Your task to perform on an android device: search for starred emails in the gmail app Image 0: 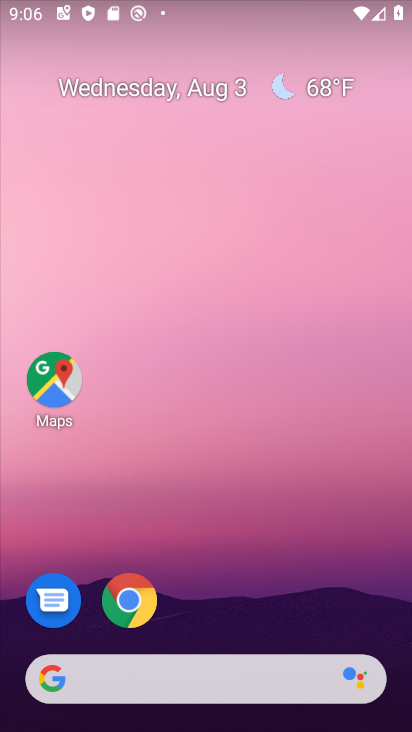
Step 0: drag from (163, 622) to (126, 0)
Your task to perform on an android device: search for starred emails in the gmail app Image 1: 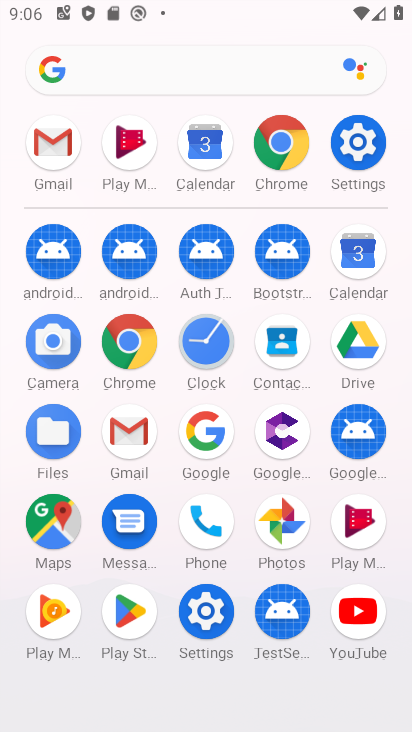
Step 1: click (134, 445)
Your task to perform on an android device: search for starred emails in the gmail app Image 2: 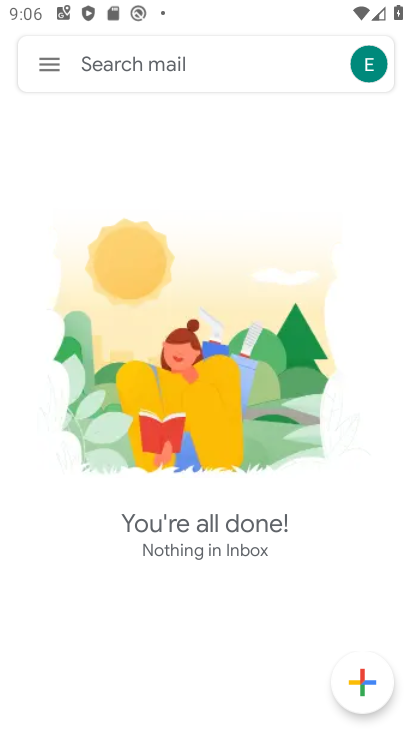
Step 2: click (51, 60)
Your task to perform on an android device: search for starred emails in the gmail app Image 3: 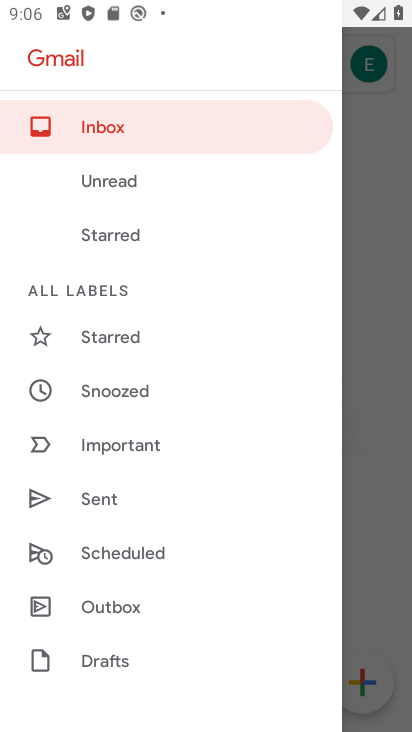
Step 3: click (88, 248)
Your task to perform on an android device: search for starred emails in the gmail app Image 4: 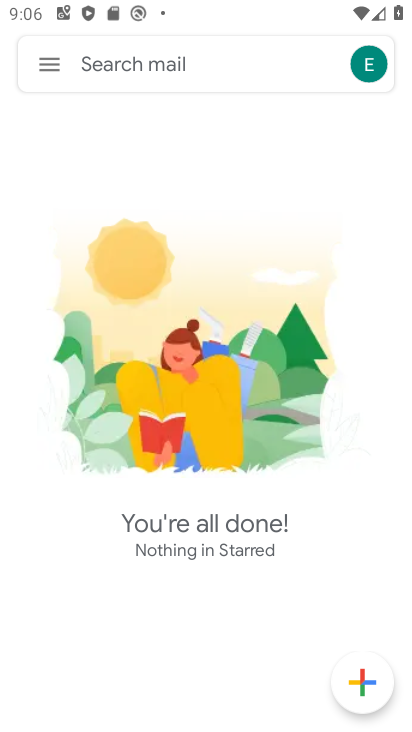
Step 4: task complete